Your task to perform on an android device: turn on location history Image 0: 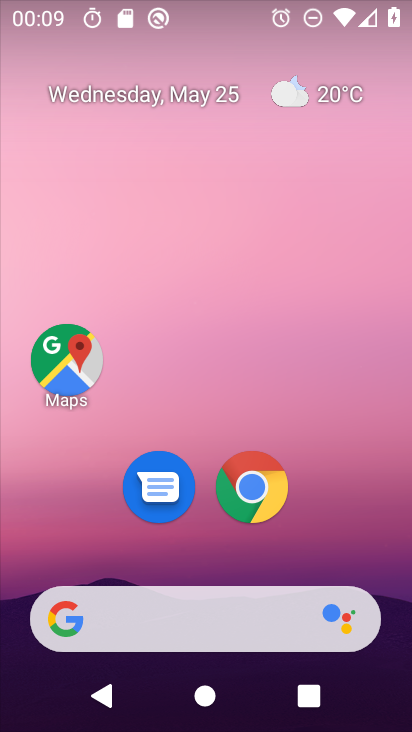
Step 0: click (57, 359)
Your task to perform on an android device: turn on location history Image 1: 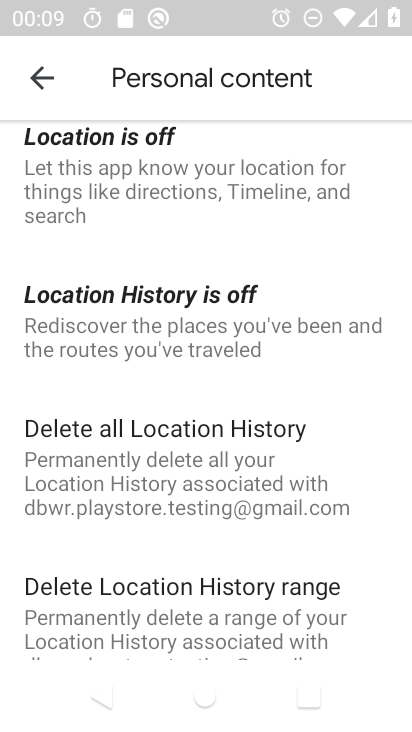
Step 1: click (211, 311)
Your task to perform on an android device: turn on location history Image 2: 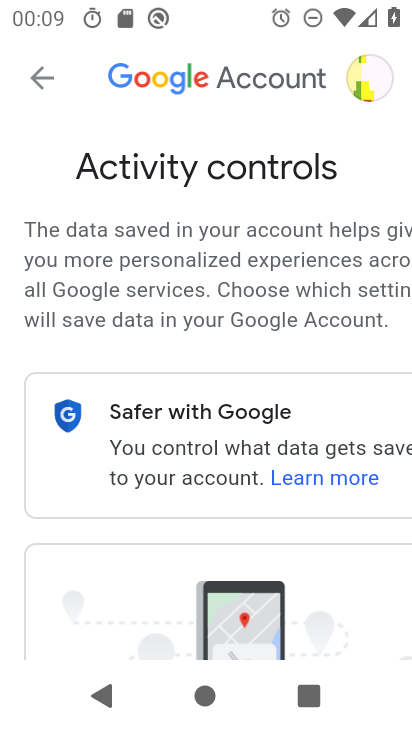
Step 2: drag from (365, 550) to (407, 133)
Your task to perform on an android device: turn on location history Image 3: 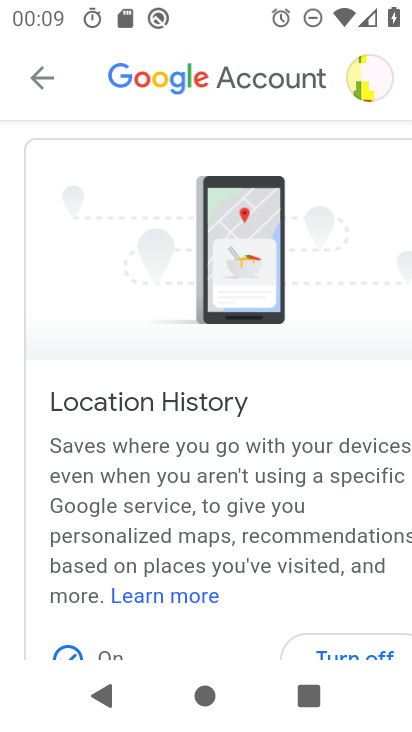
Step 3: drag from (306, 507) to (363, 243)
Your task to perform on an android device: turn on location history Image 4: 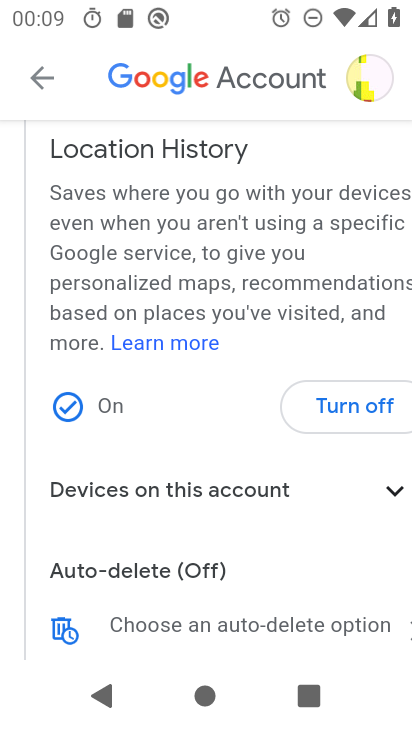
Step 4: click (83, 409)
Your task to perform on an android device: turn on location history Image 5: 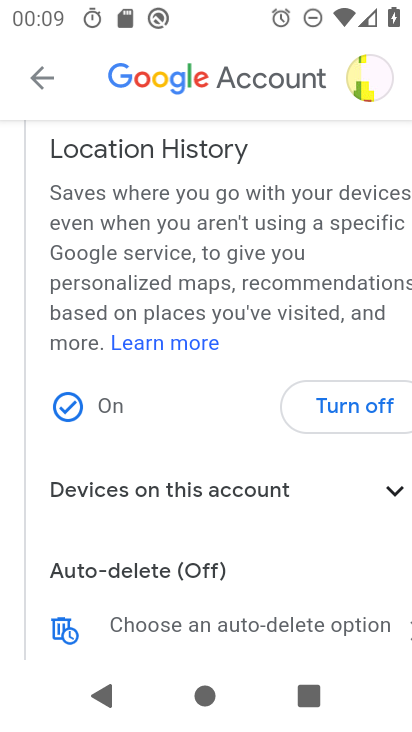
Step 5: click (117, 406)
Your task to perform on an android device: turn on location history Image 6: 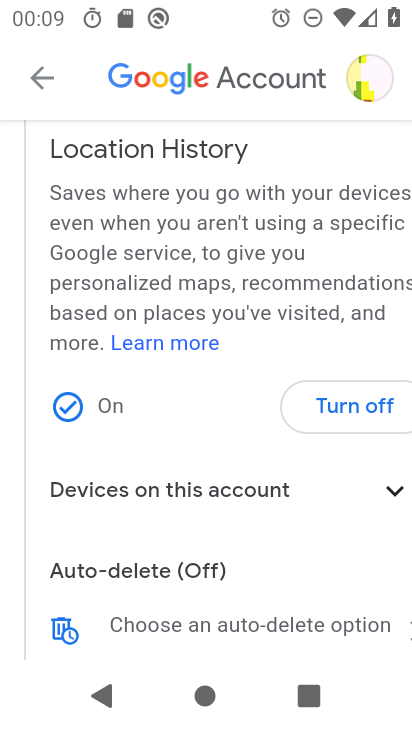
Step 6: click (72, 405)
Your task to perform on an android device: turn on location history Image 7: 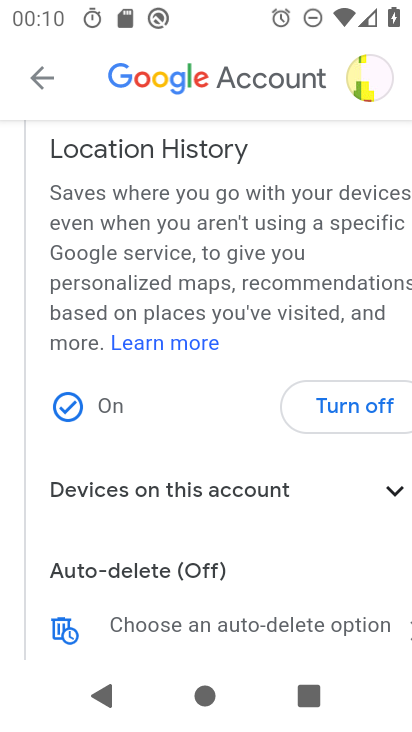
Step 7: drag from (276, 527) to (326, 285)
Your task to perform on an android device: turn on location history Image 8: 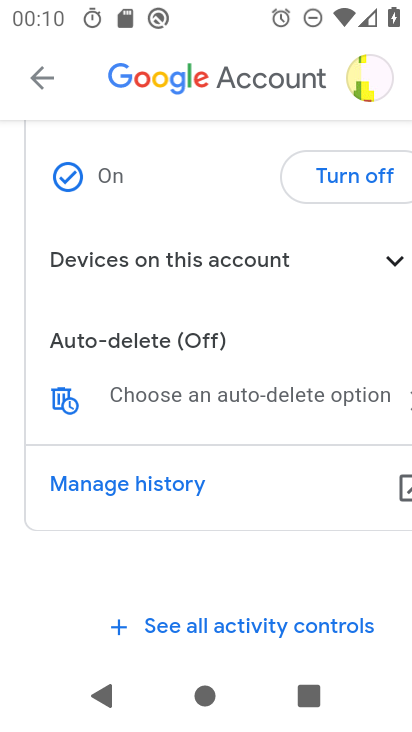
Step 8: click (101, 174)
Your task to perform on an android device: turn on location history Image 9: 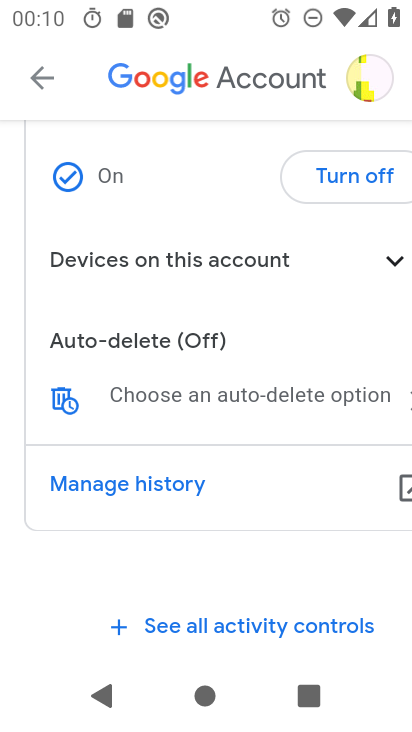
Step 9: task complete